Your task to perform on an android device: Search for Italian restaurants on Maps Image 0: 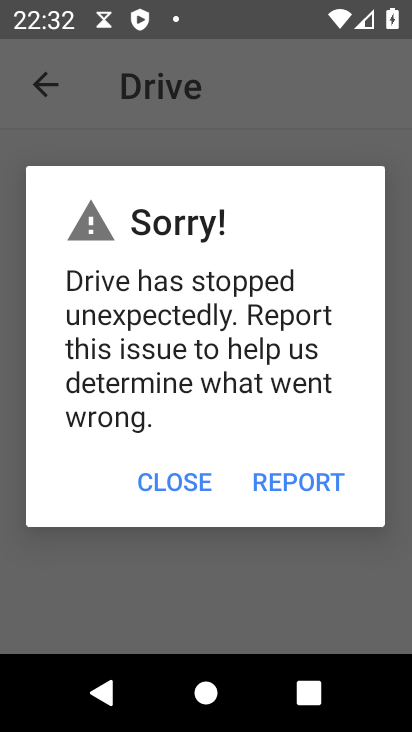
Step 0: press home button
Your task to perform on an android device: Search for Italian restaurants on Maps Image 1: 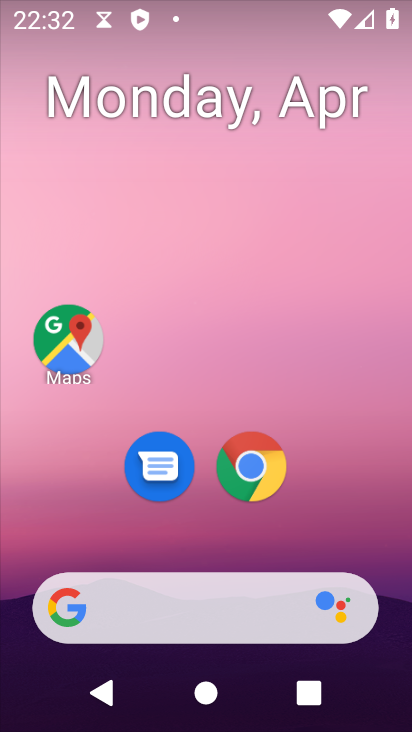
Step 1: click (69, 346)
Your task to perform on an android device: Search for Italian restaurants on Maps Image 2: 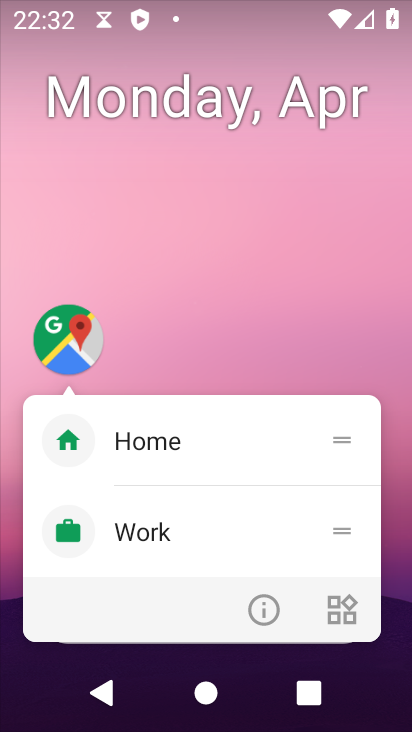
Step 2: click (69, 346)
Your task to perform on an android device: Search for Italian restaurants on Maps Image 3: 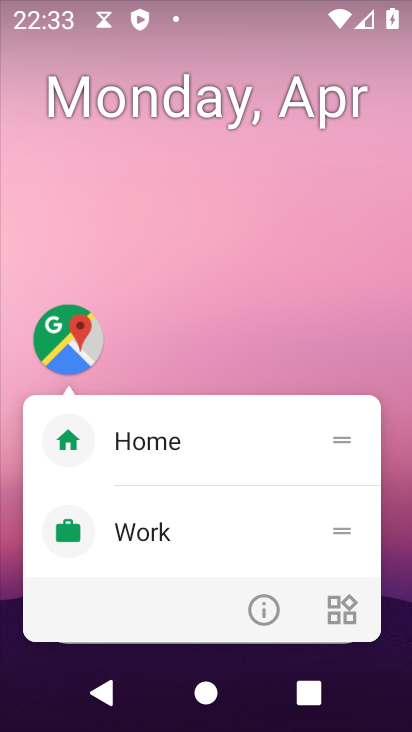
Step 3: click (67, 340)
Your task to perform on an android device: Search for Italian restaurants on Maps Image 4: 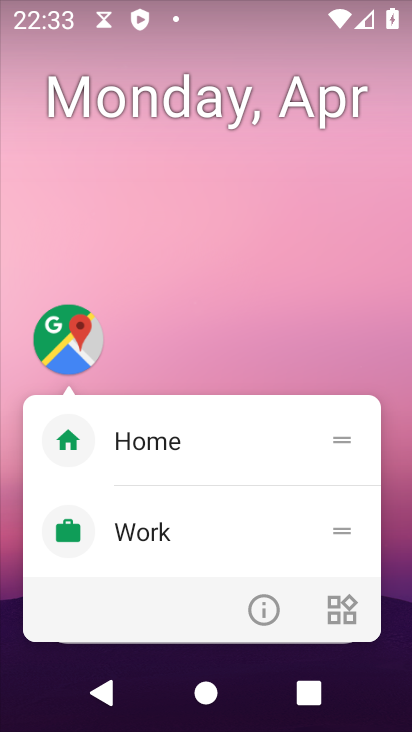
Step 4: click (67, 340)
Your task to perform on an android device: Search for Italian restaurants on Maps Image 5: 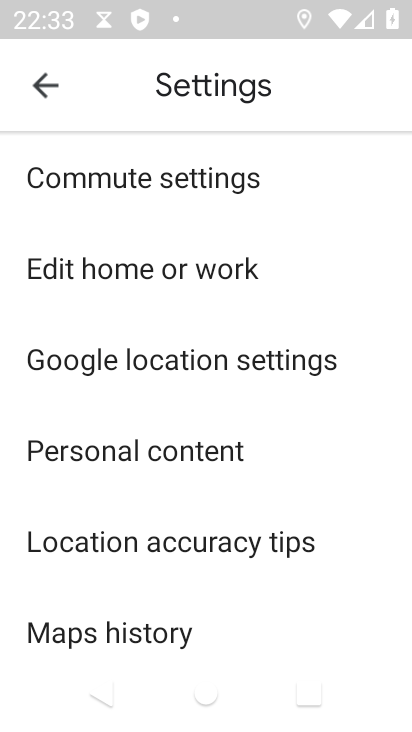
Step 5: press back button
Your task to perform on an android device: Search for Italian restaurants on Maps Image 6: 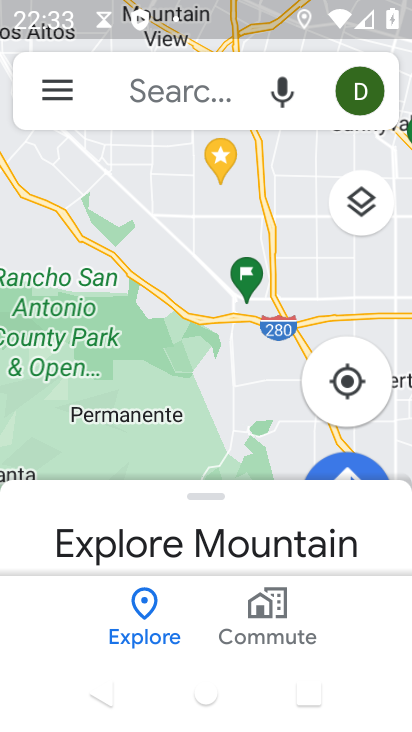
Step 6: click (165, 111)
Your task to perform on an android device: Search for Italian restaurants on Maps Image 7: 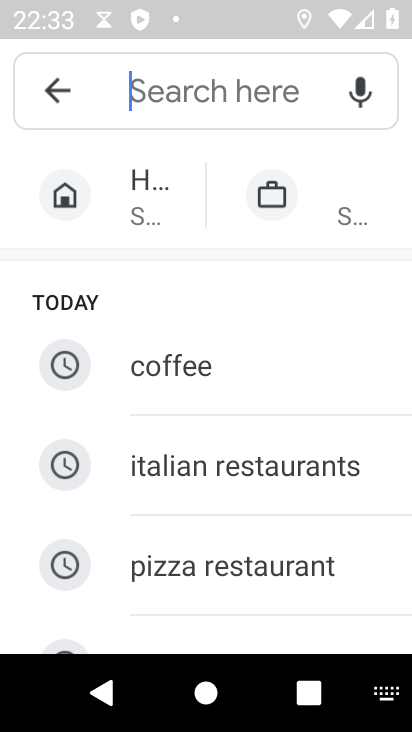
Step 7: type "Italian restaurants"
Your task to perform on an android device: Search for Italian restaurants on Maps Image 8: 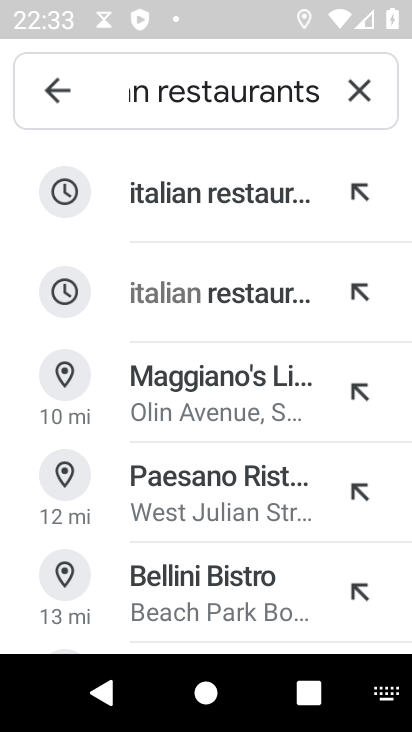
Step 8: click (224, 188)
Your task to perform on an android device: Search for Italian restaurants on Maps Image 9: 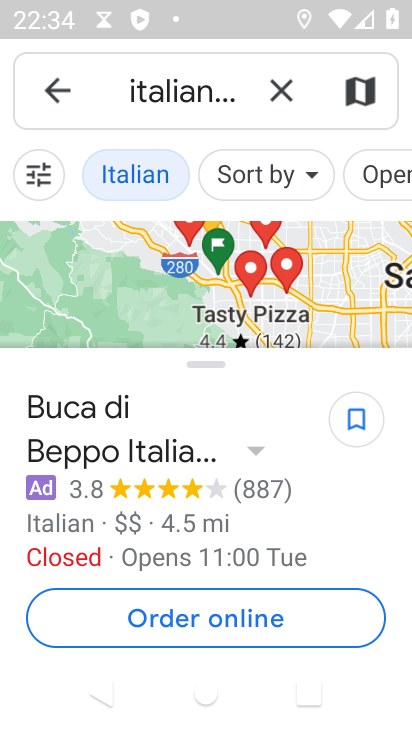
Step 9: task complete